Your task to perform on an android device: Open settings on Google Maps Image 0: 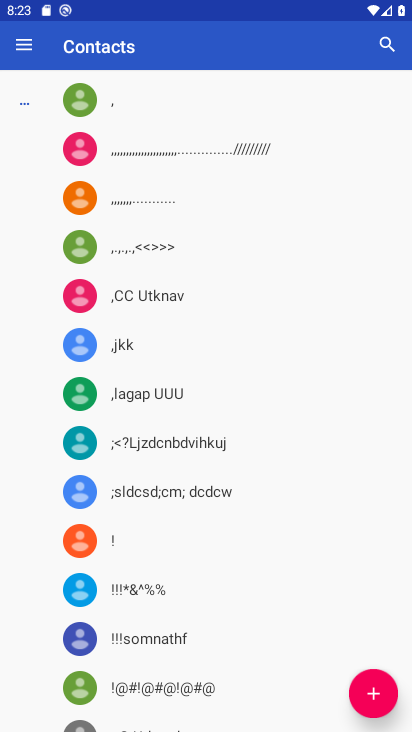
Step 0: press home button
Your task to perform on an android device: Open settings on Google Maps Image 1: 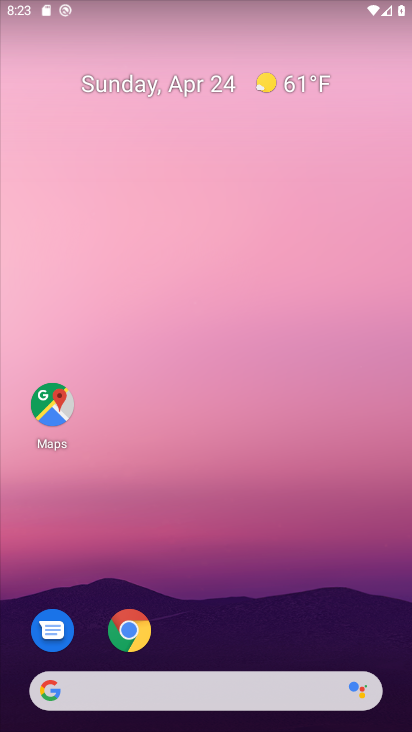
Step 1: drag from (361, 631) to (353, 113)
Your task to perform on an android device: Open settings on Google Maps Image 2: 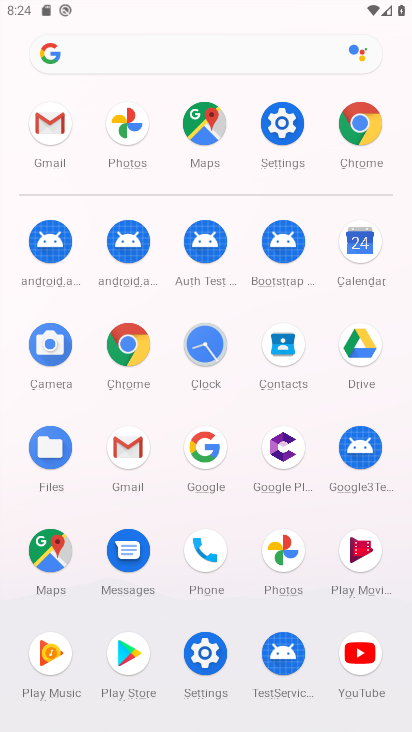
Step 2: click (210, 137)
Your task to perform on an android device: Open settings on Google Maps Image 3: 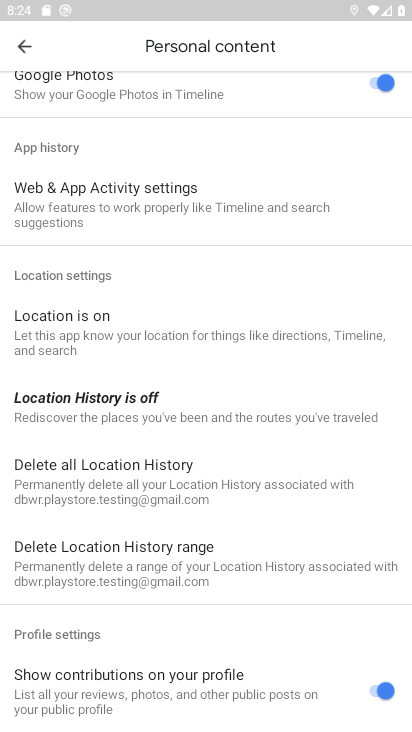
Step 3: drag from (322, 619) to (325, 399)
Your task to perform on an android device: Open settings on Google Maps Image 4: 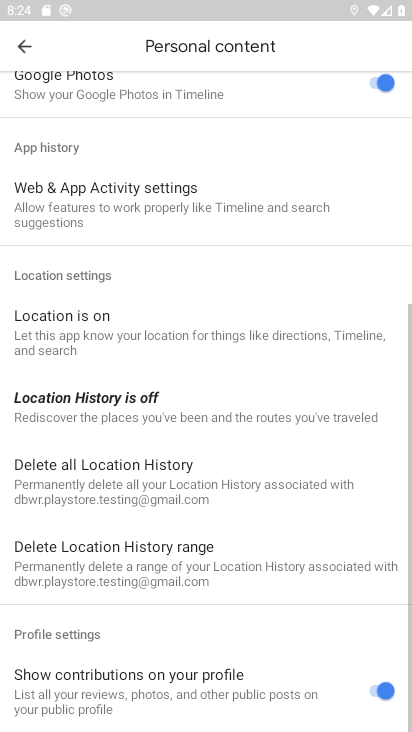
Step 4: drag from (327, 247) to (345, 426)
Your task to perform on an android device: Open settings on Google Maps Image 5: 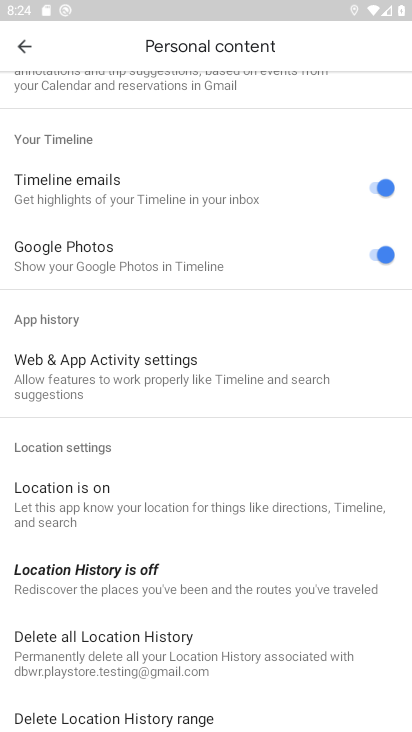
Step 5: drag from (304, 213) to (317, 384)
Your task to perform on an android device: Open settings on Google Maps Image 6: 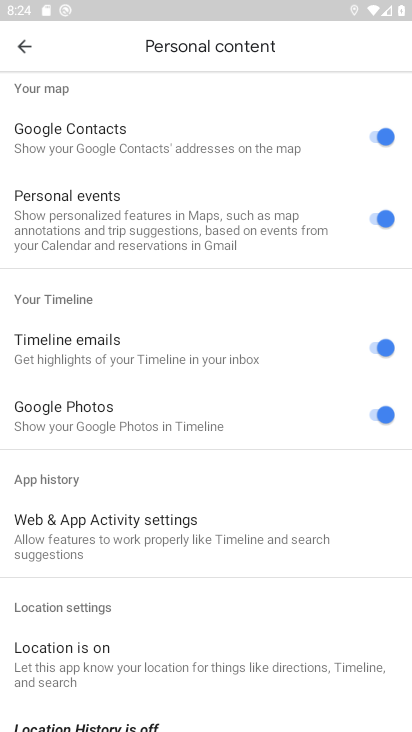
Step 6: drag from (313, 179) to (321, 417)
Your task to perform on an android device: Open settings on Google Maps Image 7: 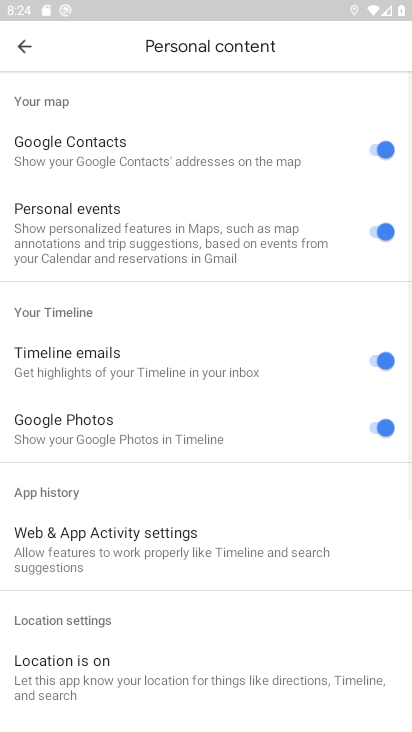
Step 7: drag from (266, 494) to (270, 320)
Your task to perform on an android device: Open settings on Google Maps Image 8: 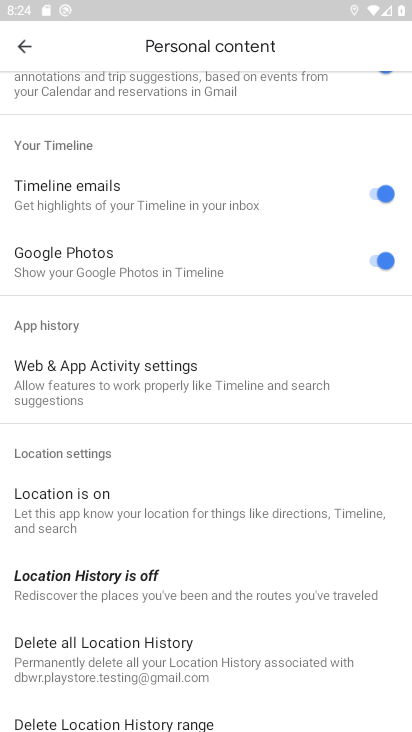
Step 8: click (20, 48)
Your task to perform on an android device: Open settings on Google Maps Image 9: 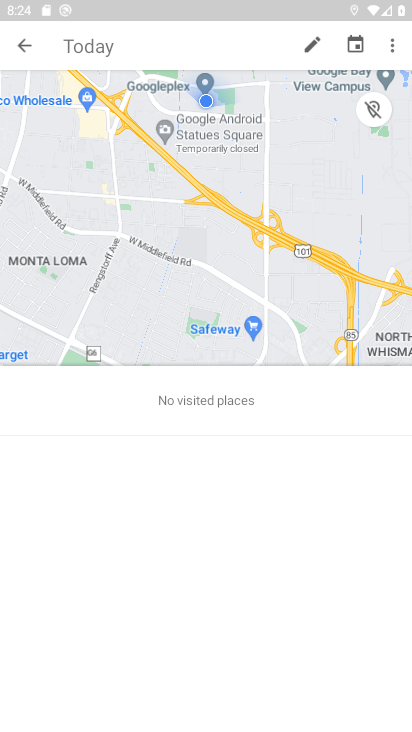
Step 9: click (27, 37)
Your task to perform on an android device: Open settings on Google Maps Image 10: 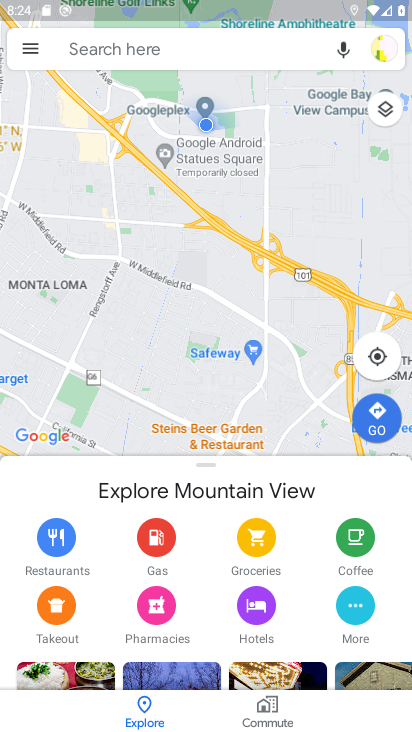
Step 10: click (21, 49)
Your task to perform on an android device: Open settings on Google Maps Image 11: 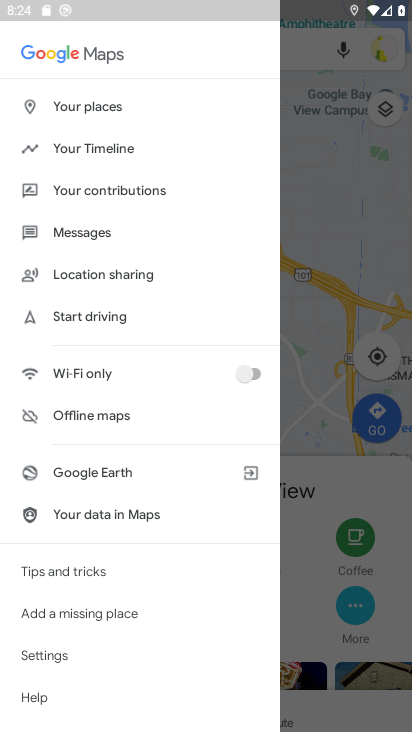
Step 11: drag from (211, 583) to (177, 368)
Your task to perform on an android device: Open settings on Google Maps Image 12: 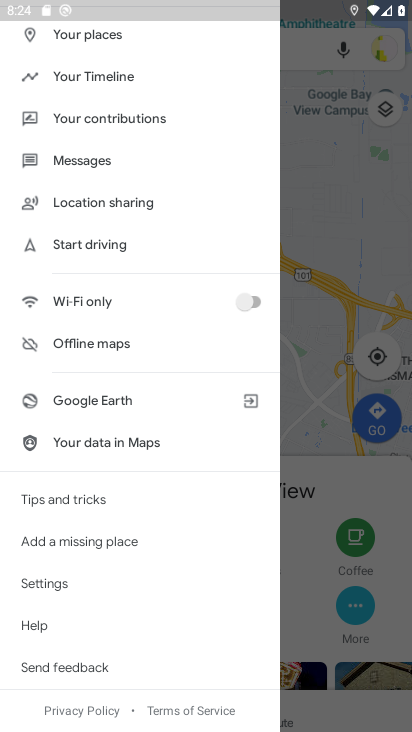
Step 12: click (60, 598)
Your task to perform on an android device: Open settings on Google Maps Image 13: 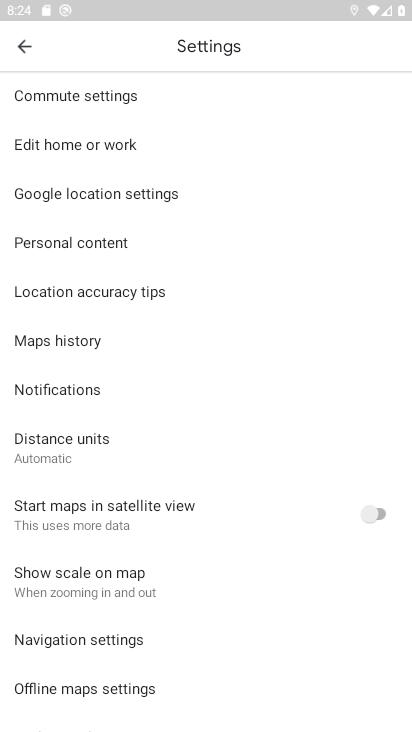
Step 13: task complete